Your task to perform on an android device: toggle wifi Image 0: 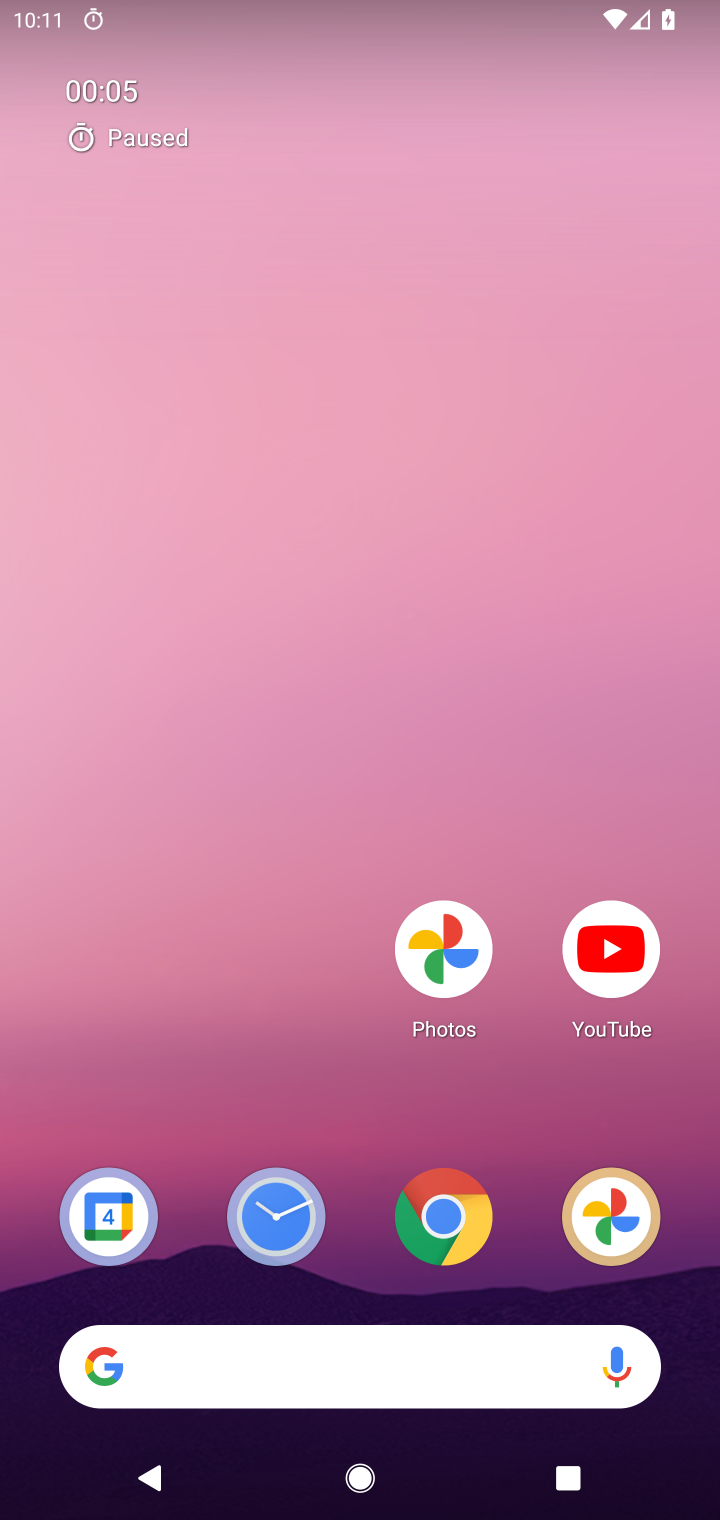
Step 0: drag from (369, 1290) to (266, 171)
Your task to perform on an android device: toggle wifi Image 1: 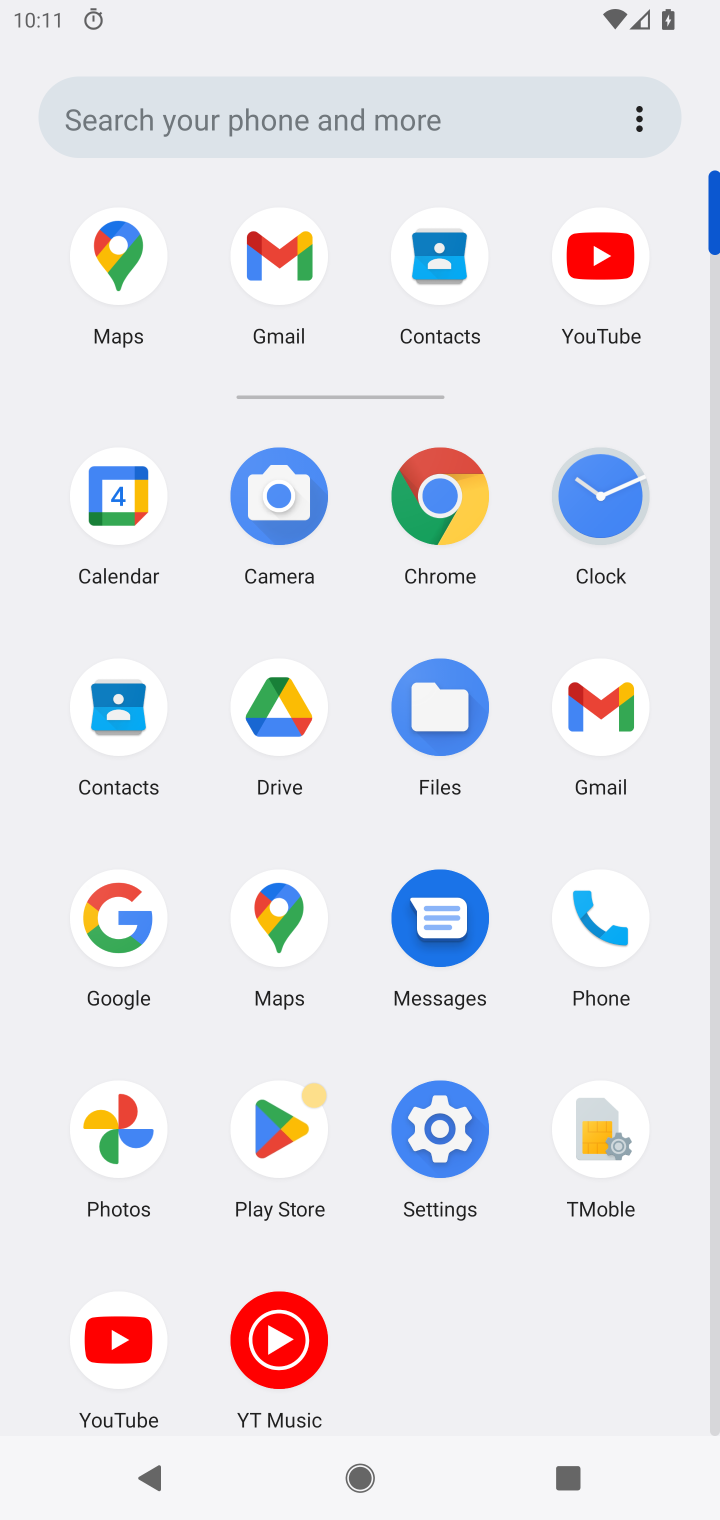
Step 1: click (452, 1130)
Your task to perform on an android device: toggle wifi Image 2: 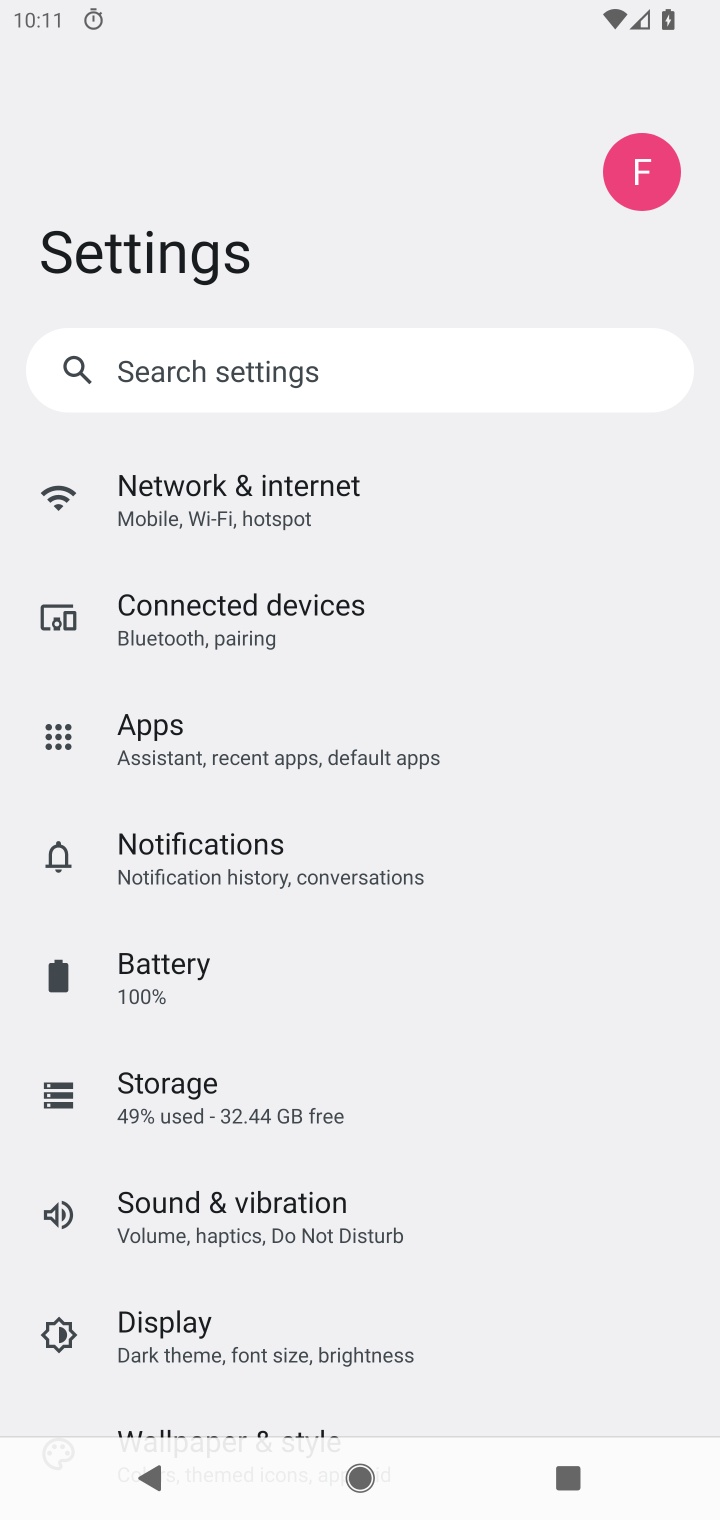
Step 2: click (188, 509)
Your task to perform on an android device: toggle wifi Image 3: 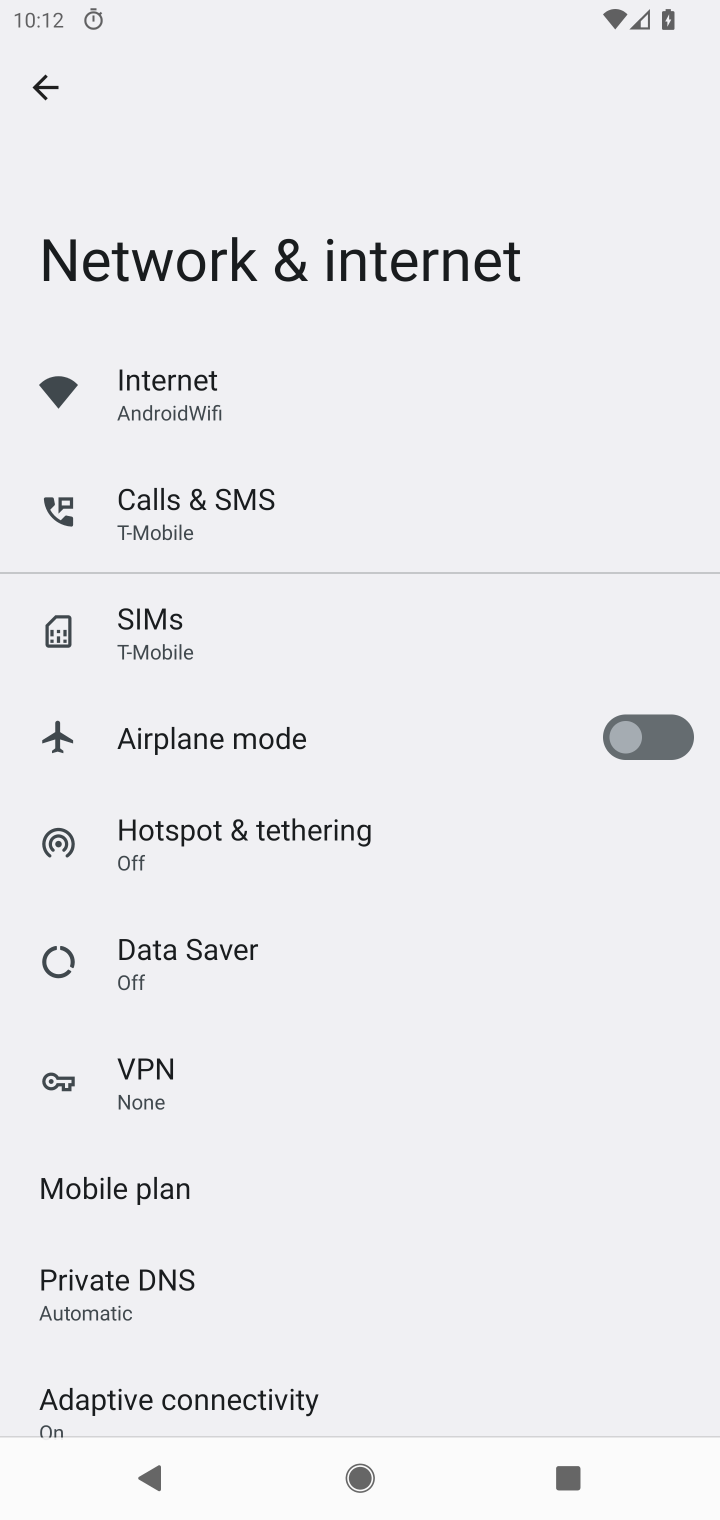
Step 3: click (170, 396)
Your task to perform on an android device: toggle wifi Image 4: 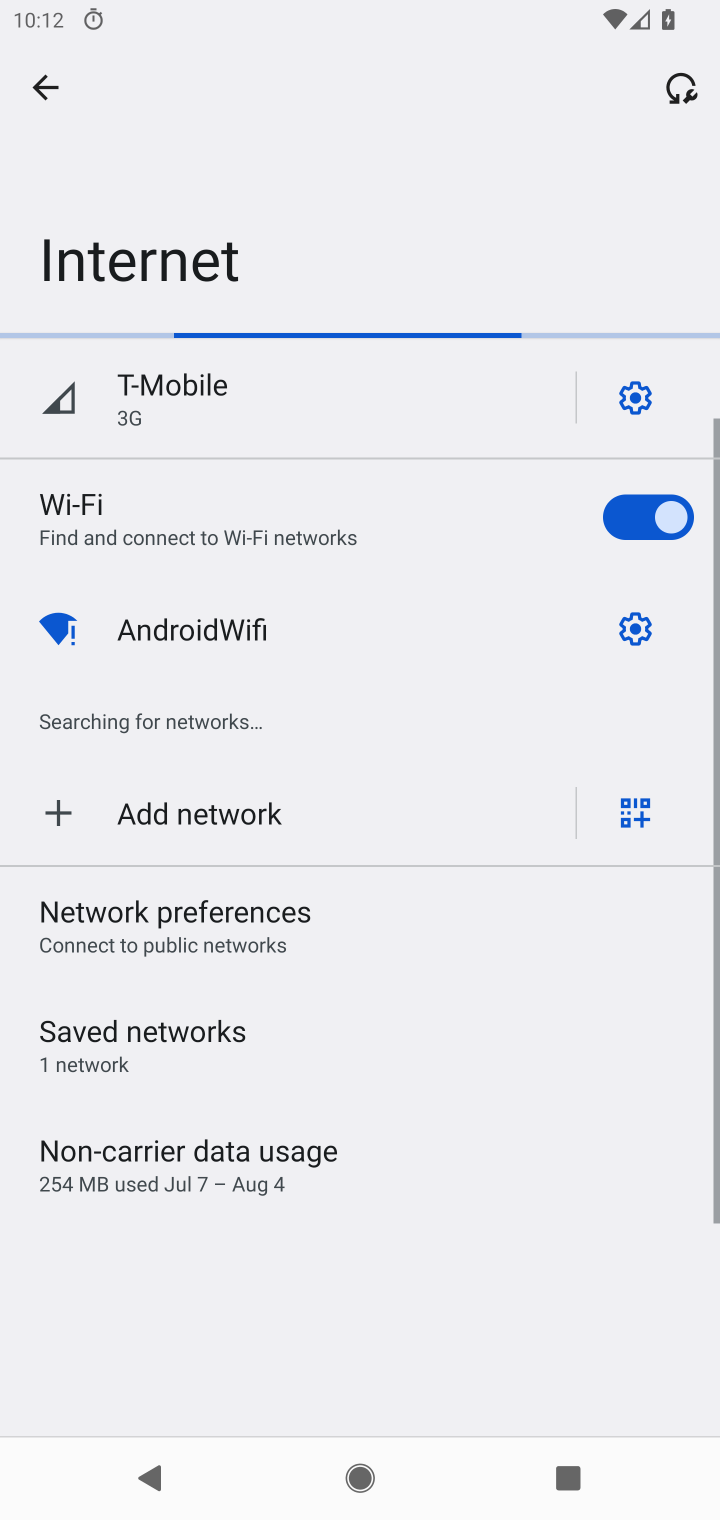
Step 4: click (645, 524)
Your task to perform on an android device: toggle wifi Image 5: 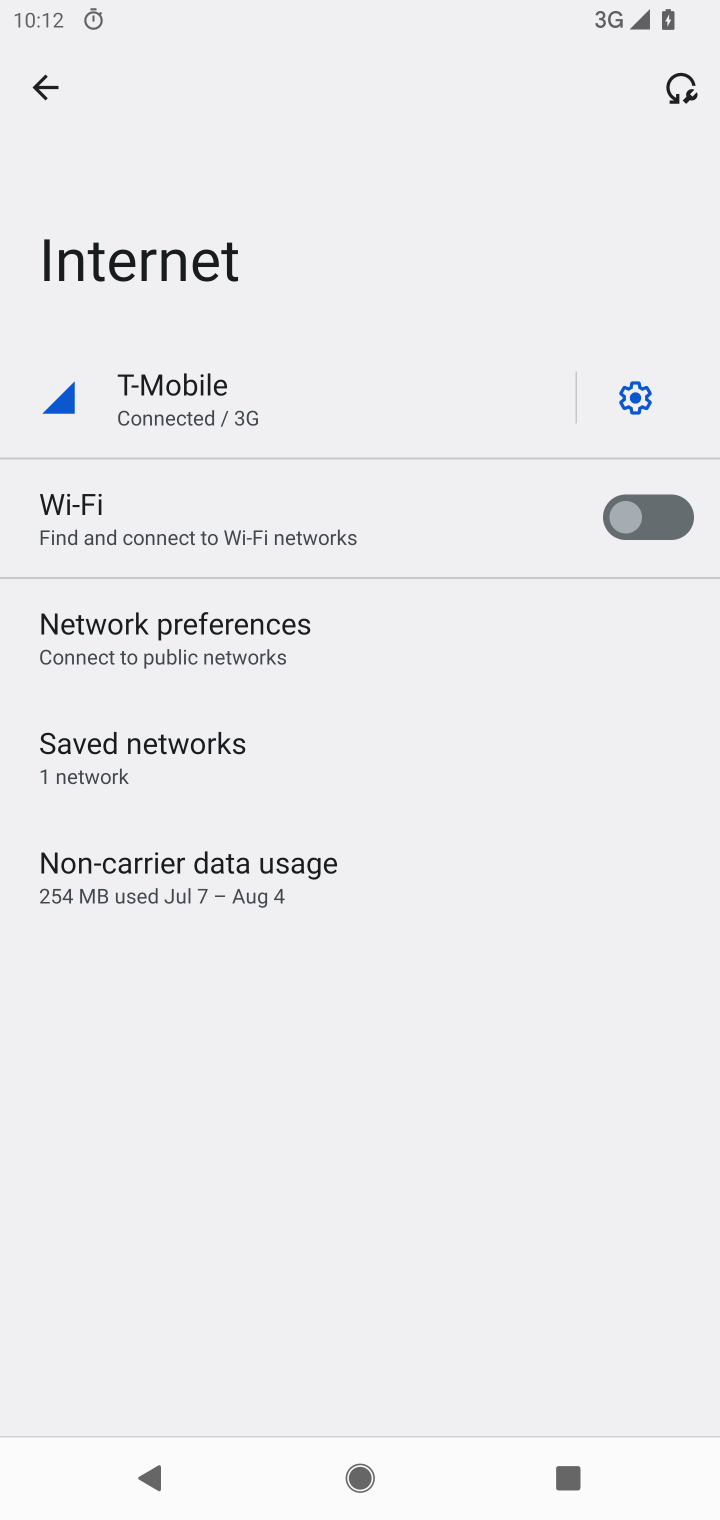
Step 5: task complete